Your task to perform on an android device: change the clock display to analog Image 0: 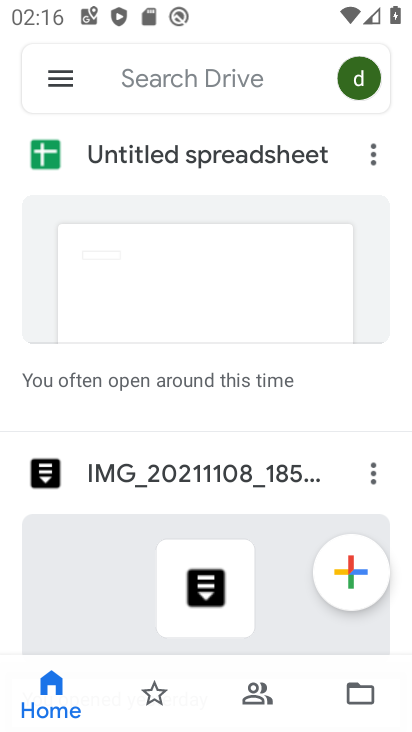
Step 0: press back button
Your task to perform on an android device: change the clock display to analog Image 1: 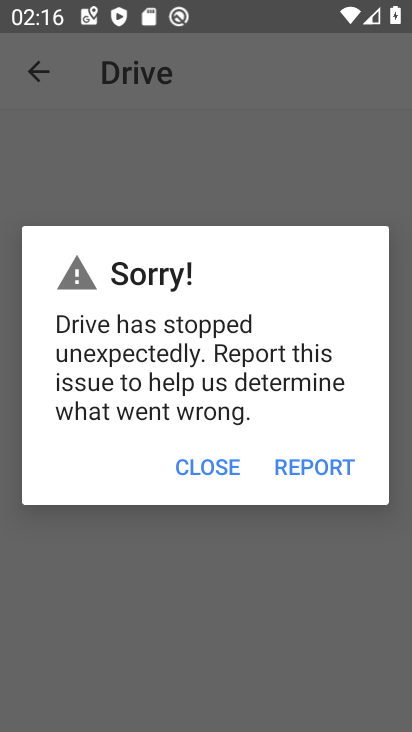
Step 1: press home button
Your task to perform on an android device: change the clock display to analog Image 2: 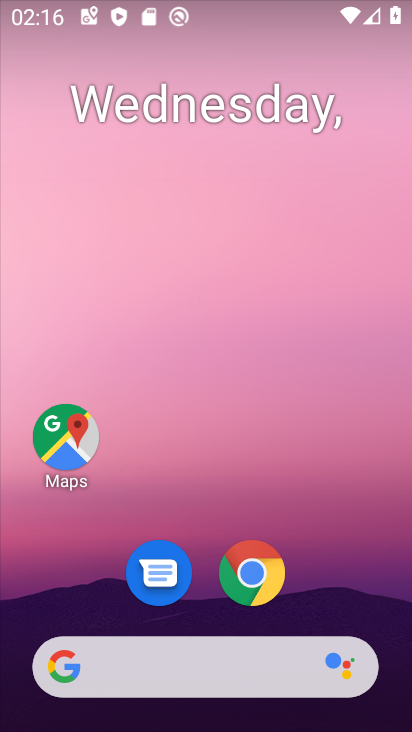
Step 2: drag from (321, 563) to (297, 56)
Your task to perform on an android device: change the clock display to analog Image 3: 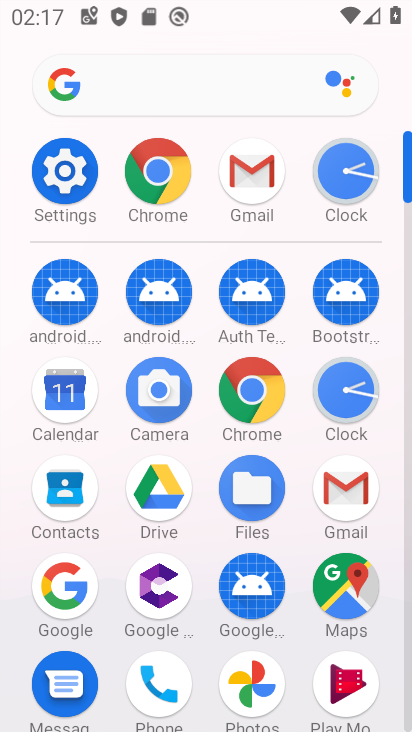
Step 3: click (346, 173)
Your task to perform on an android device: change the clock display to analog Image 4: 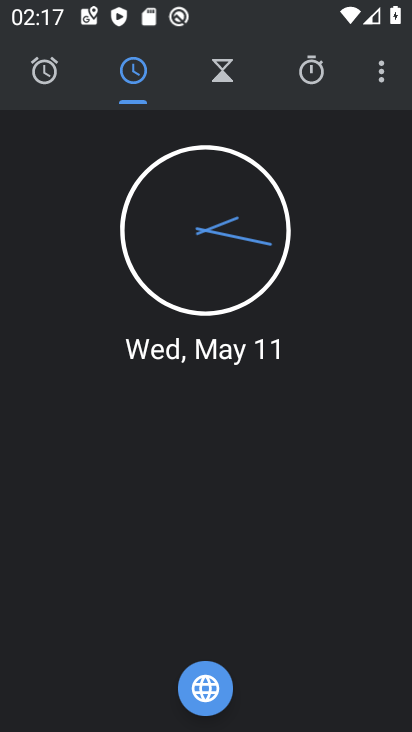
Step 4: click (386, 71)
Your task to perform on an android device: change the clock display to analog Image 5: 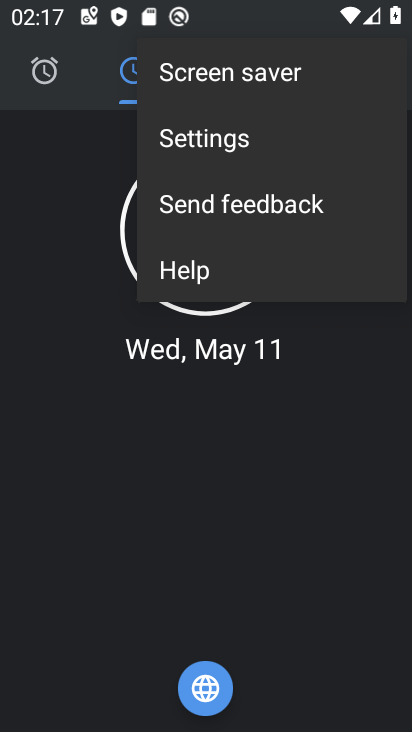
Step 5: click (225, 131)
Your task to perform on an android device: change the clock display to analog Image 6: 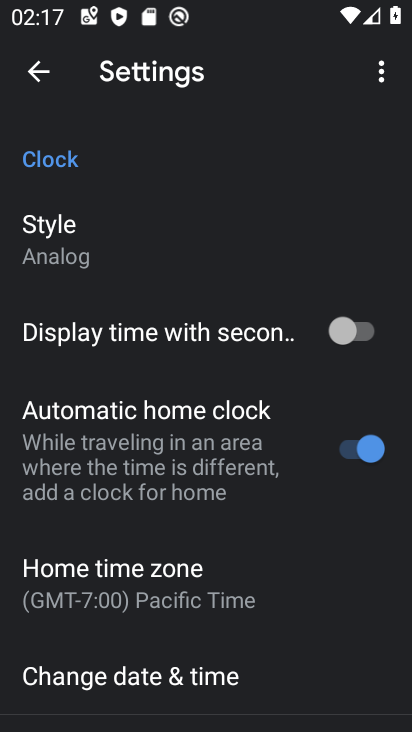
Step 6: click (108, 247)
Your task to perform on an android device: change the clock display to analog Image 7: 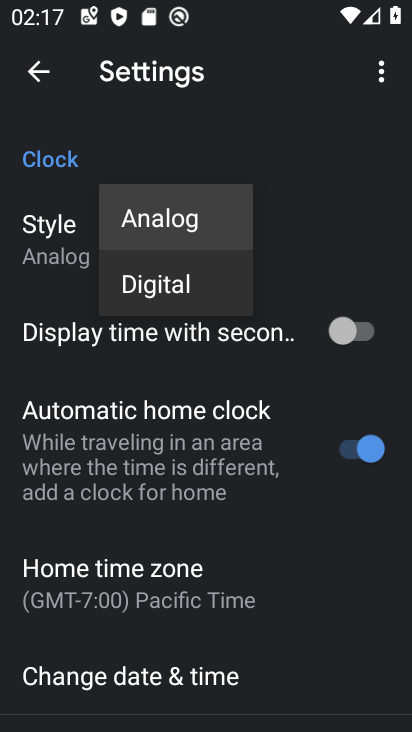
Step 7: click (132, 231)
Your task to perform on an android device: change the clock display to analog Image 8: 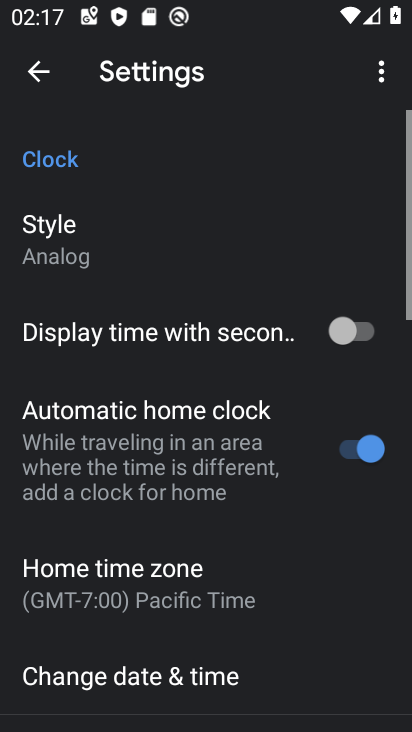
Step 8: task complete